Your task to perform on an android device: Open eBay Image 0: 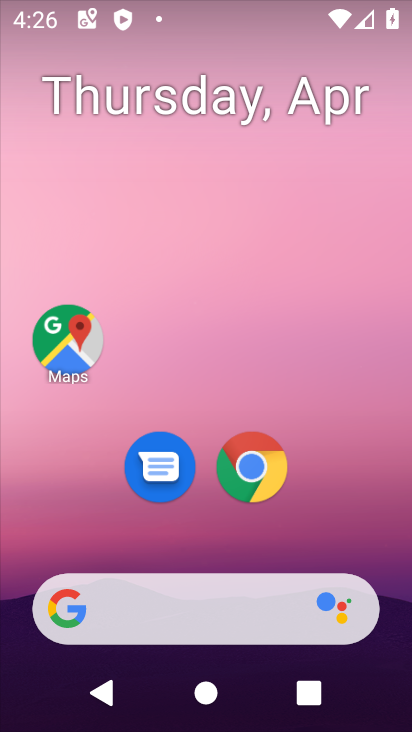
Step 0: click (256, 458)
Your task to perform on an android device: Open eBay Image 1: 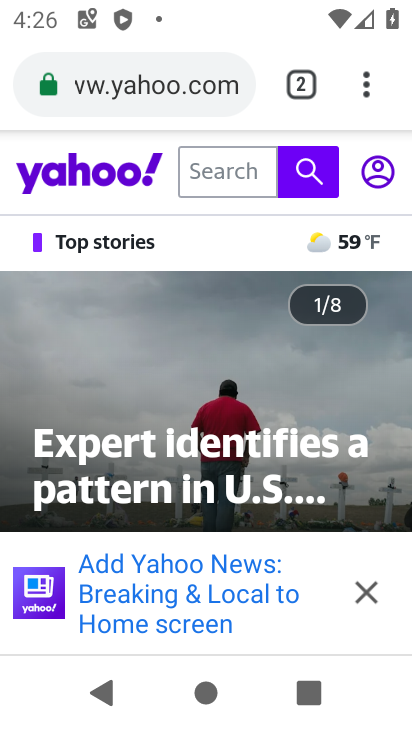
Step 1: click (168, 78)
Your task to perform on an android device: Open eBay Image 2: 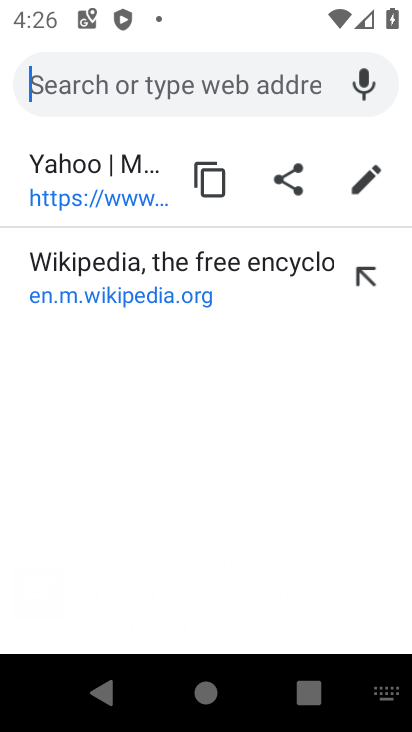
Step 2: type "eBay"
Your task to perform on an android device: Open eBay Image 3: 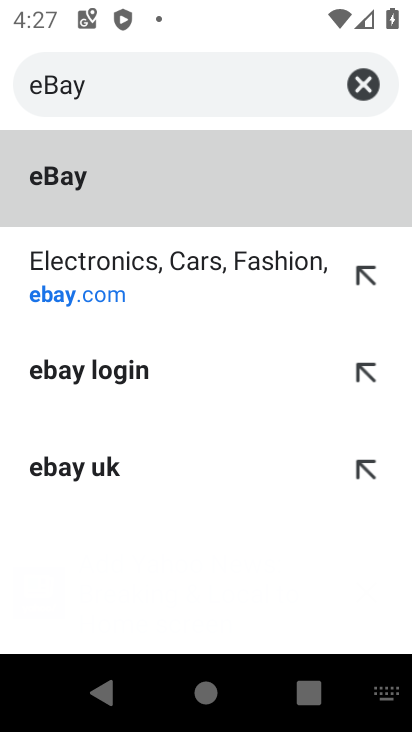
Step 3: click (145, 187)
Your task to perform on an android device: Open eBay Image 4: 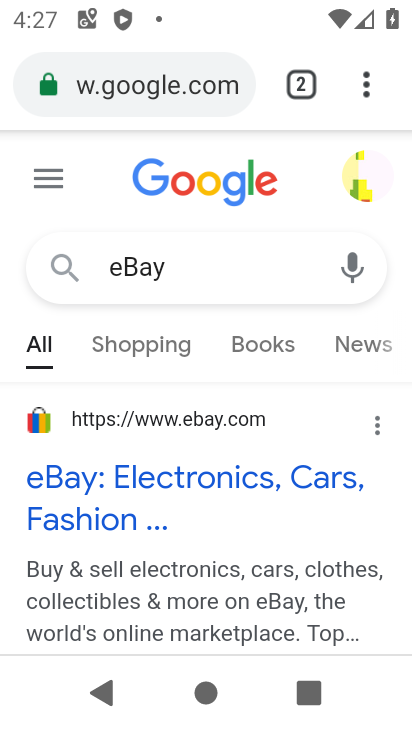
Step 4: task complete